Your task to perform on an android device: check data usage Image 0: 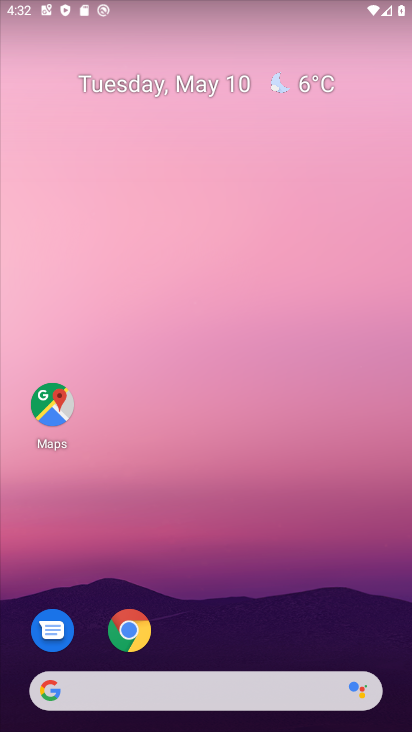
Step 0: drag from (264, 534) to (327, 60)
Your task to perform on an android device: check data usage Image 1: 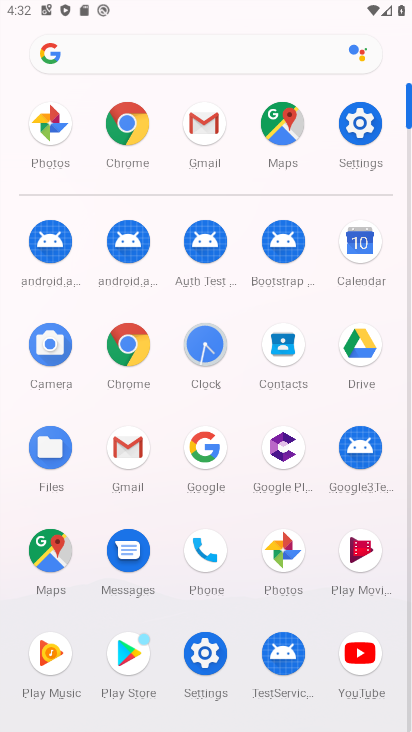
Step 1: click (366, 118)
Your task to perform on an android device: check data usage Image 2: 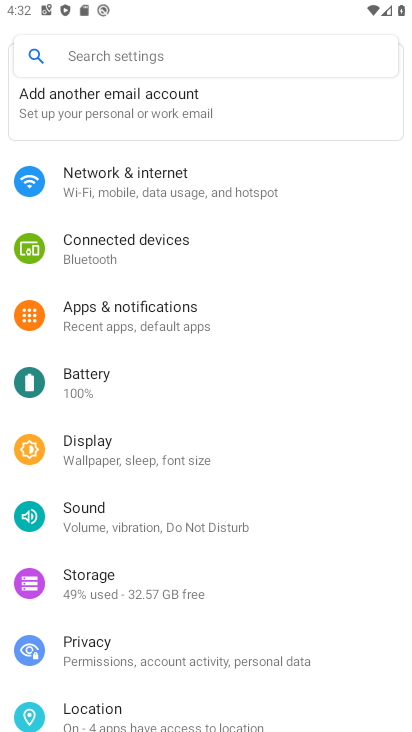
Step 2: drag from (254, 258) to (270, 641)
Your task to perform on an android device: check data usage Image 3: 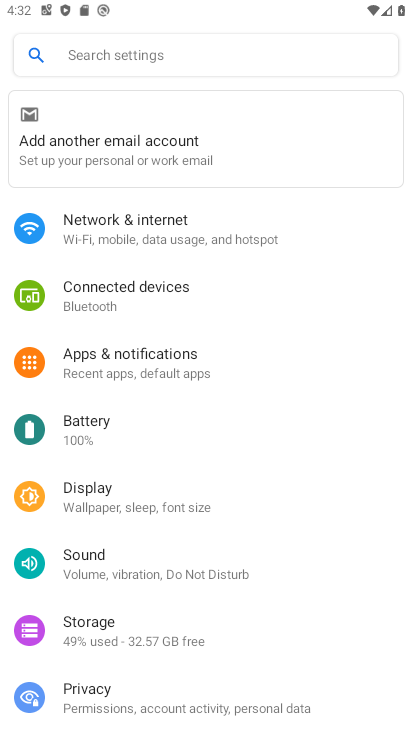
Step 3: click (177, 233)
Your task to perform on an android device: check data usage Image 4: 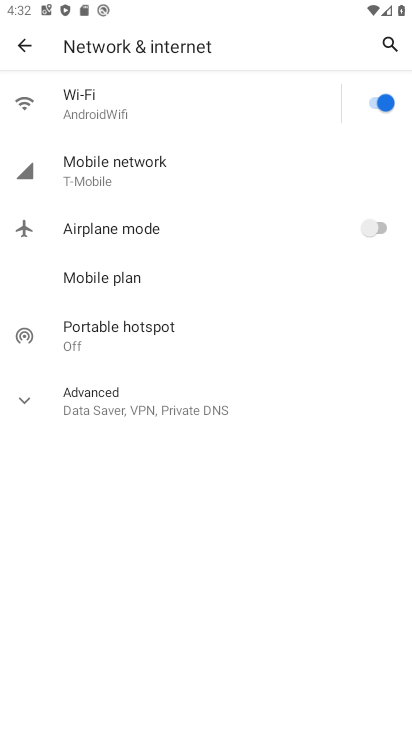
Step 4: click (153, 173)
Your task to perform on an android device: check data usage Image 5: 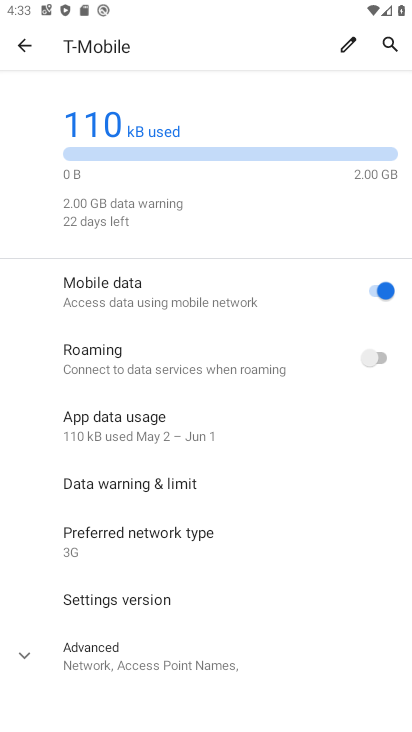
Step 5: task complete